Your task to perform on an android device: Go to accessibility settings Image 0: 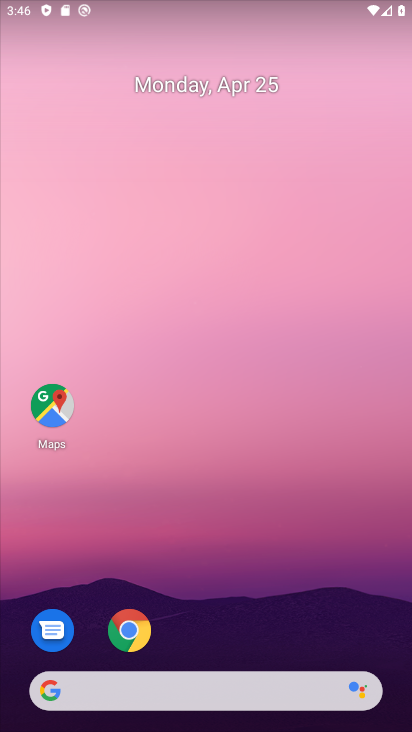
Step 0: drag from (328, 440) to (305, 51)
Your task to perform on an android device: Go to accessibility settings Image 1: 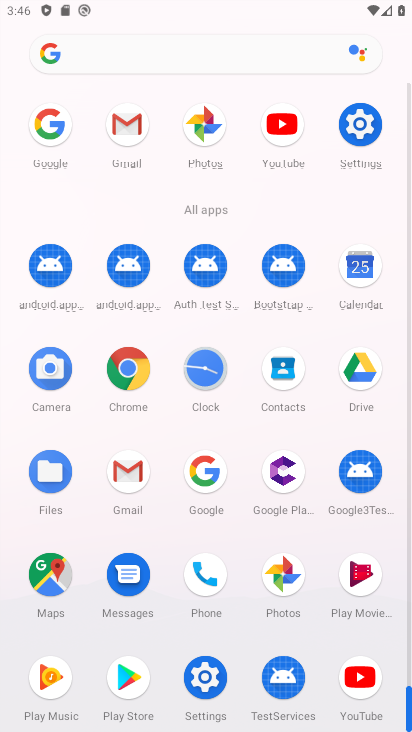
Step 1: click (348, 129)
Your task to perform on an android device: Go to accessibility settings Image 2: 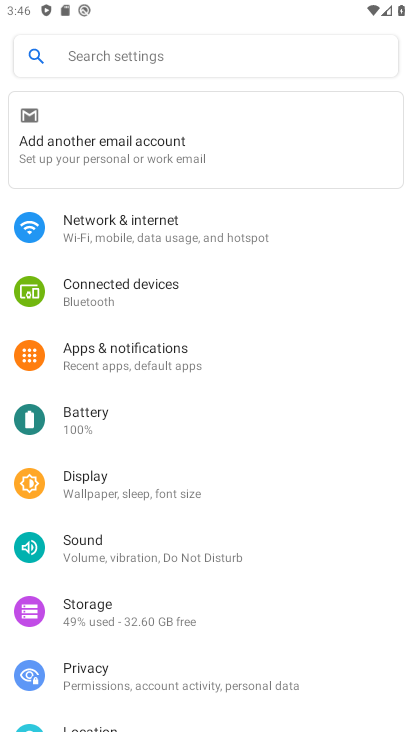
Step 2: drag from (213, 666) to (238, 150)
Your task to perform on an android device: Go to accessibility settings Image 3: 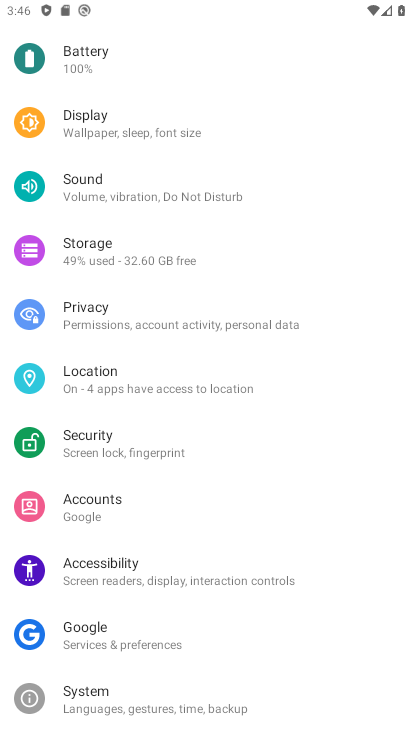
Step 3: click (179, 562)
Your task to perform on an android device: Go to accessibility settings Image 4: 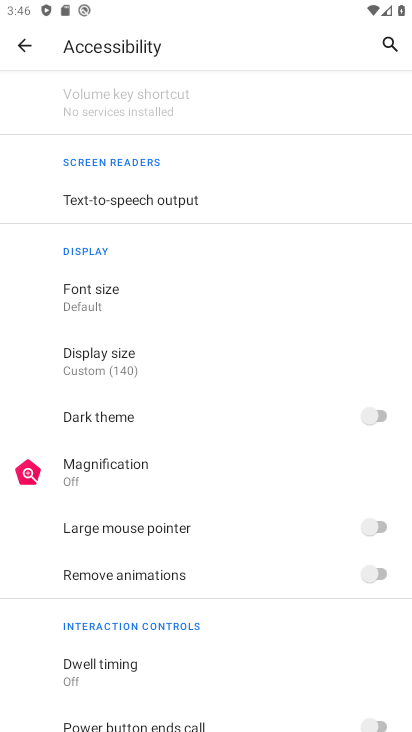
Step 4: task complete